Your task to perform on an android device: check google app version Image 0: 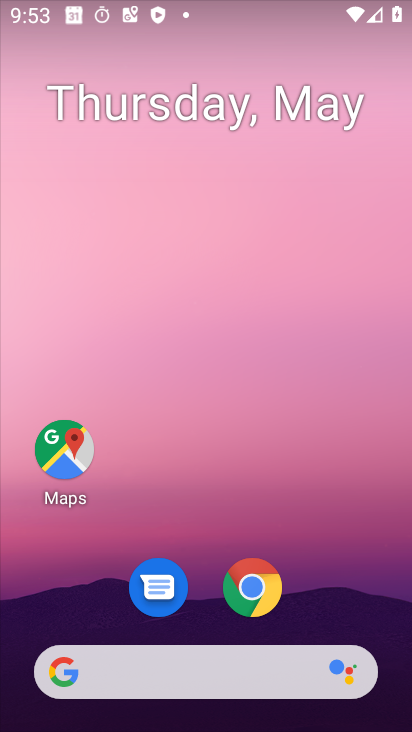
Step 0: drag from (352, 554) to (326, 19)
Your task to perform on an android device: check google app version Image 1: 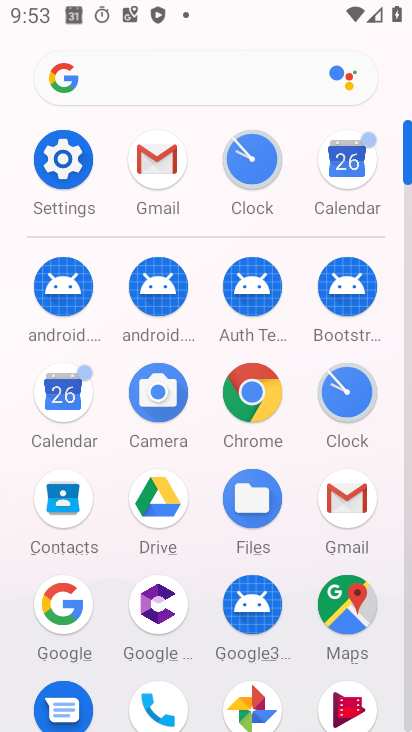
Step 1: click (61, 602)
Your task to perform on an android device: check google app version Image 2: 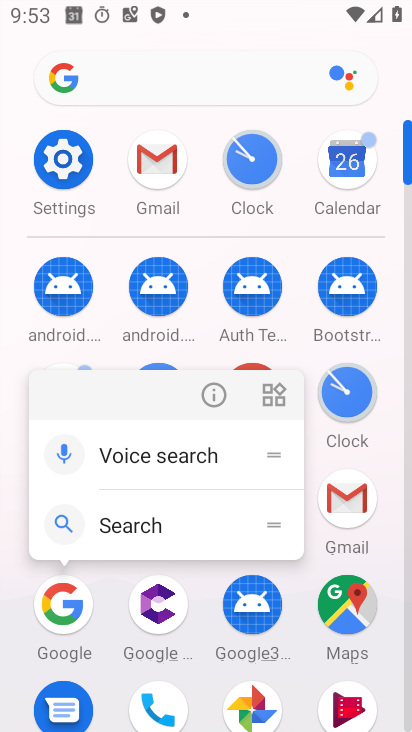
Step 2: click (206, 397)
Your task to perform on an android device: check google app version Image 3: 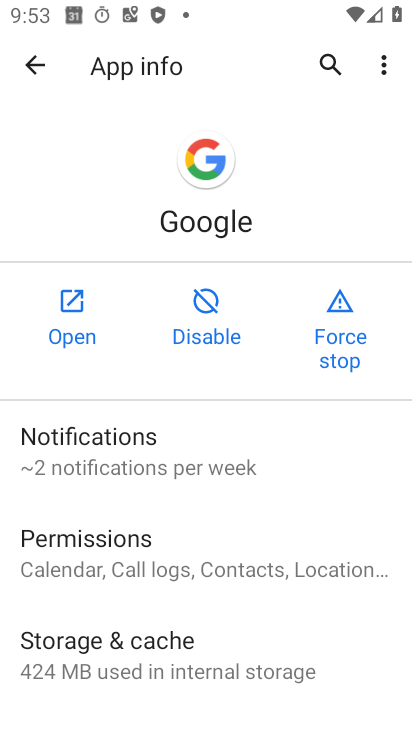
Step 3: drag from (169, 585) to (180, 127)
Your task to perform on an android device: check google app version Image 4: 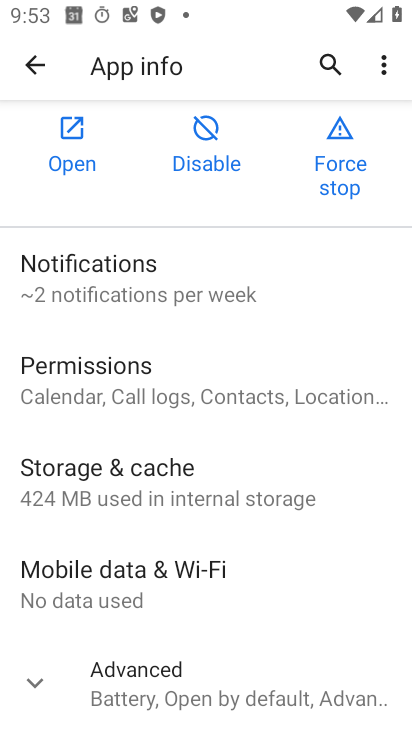
Step 4: click (35, 689)
Your task to perform on an android device: check google app version Image 5: 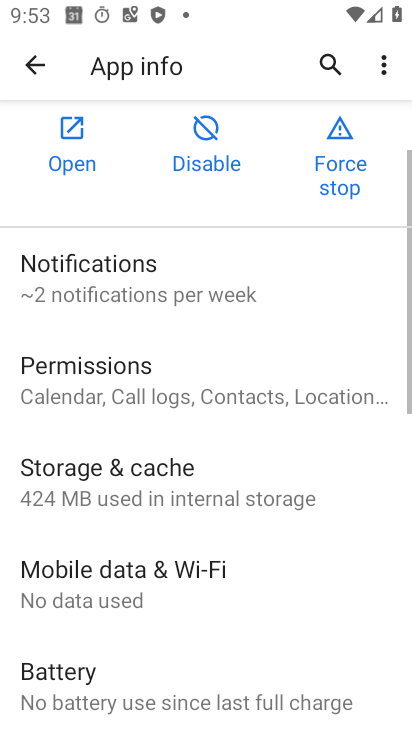
Step 5: task complete